Your task to perform on an android device: open a new tab in the chrome app Image 0: 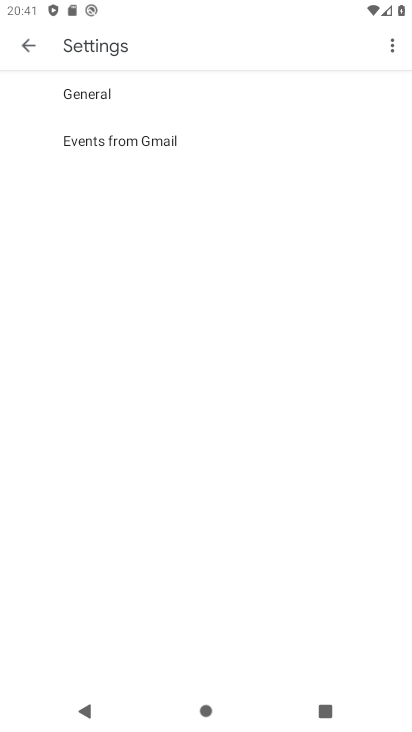
Step 0: press home button
Your task to perform on an android device: open a new tab in the chrome app Image 1: 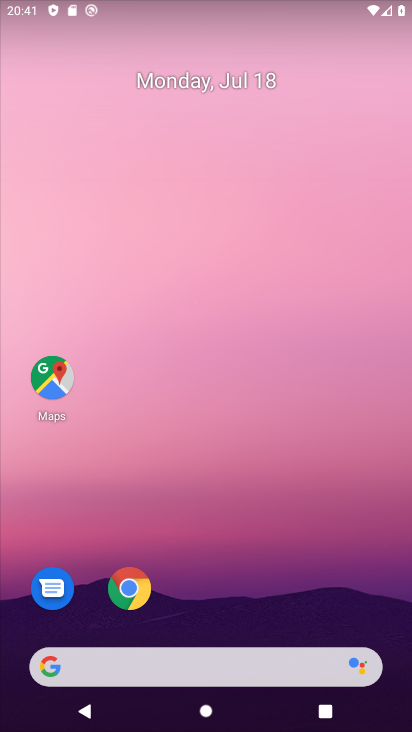
Step 1: click (140, 594)
Your task to perform on an android device: open a new tab in the chrome app Image 2: 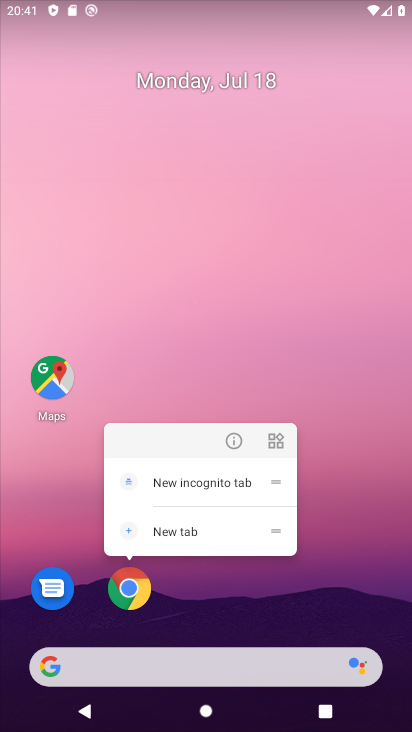
Step 2: click (132, 587)
Your task to perform on an android device: open a new tab in the chrome app Image 3: 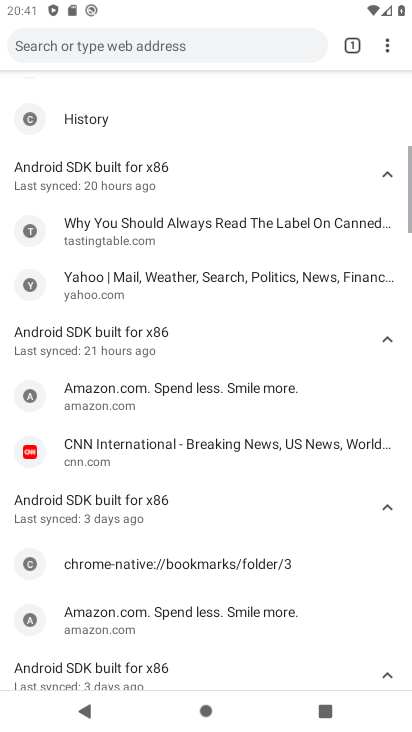
Step 3: task complete